Your task to perform on an android device: find photos in the google photos app Image 0: 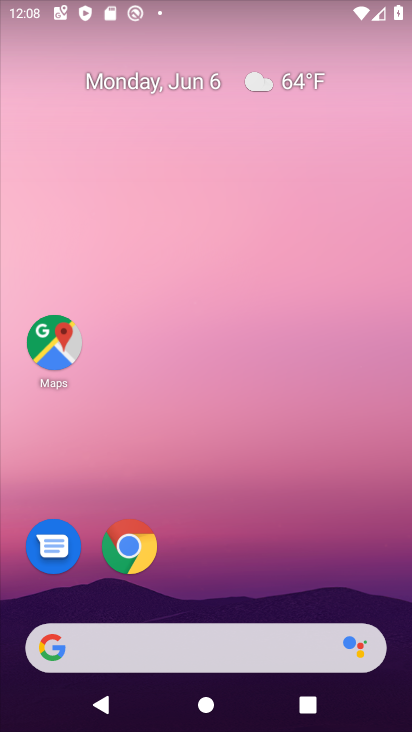
Step 0: drag from (221, 345) to (220, 175)
Your task to perform on an android device: find photos in the google photos app Image 1: 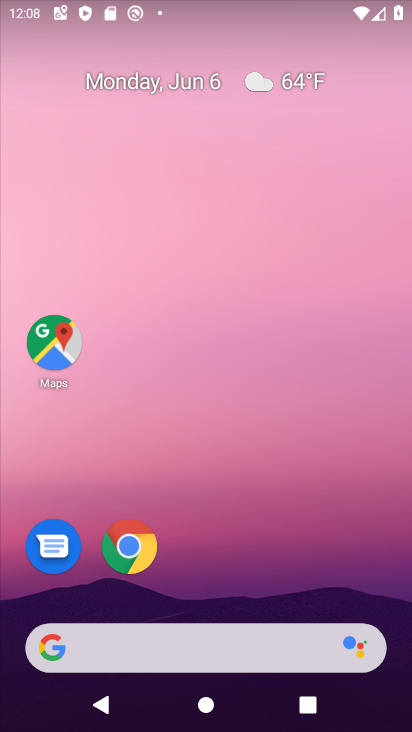
Step 1: drag from (199, 580) to (258, 243)
Your task to perform on an android device: find photos in the google photos app Image 2: 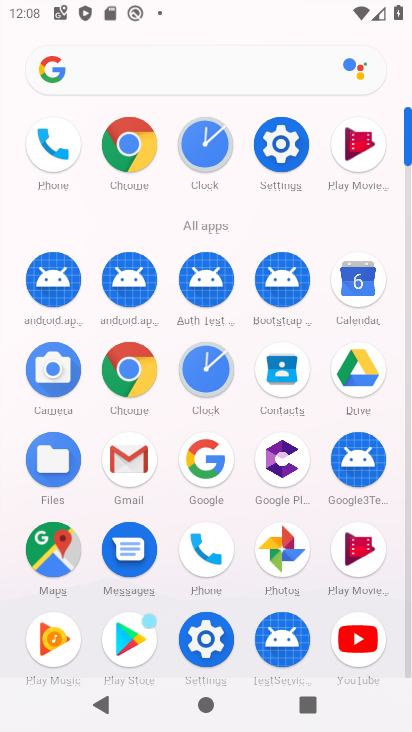
Step 2: click (279, 548)
Your task to perform on an android device: find photos in the google photos app Image 3: 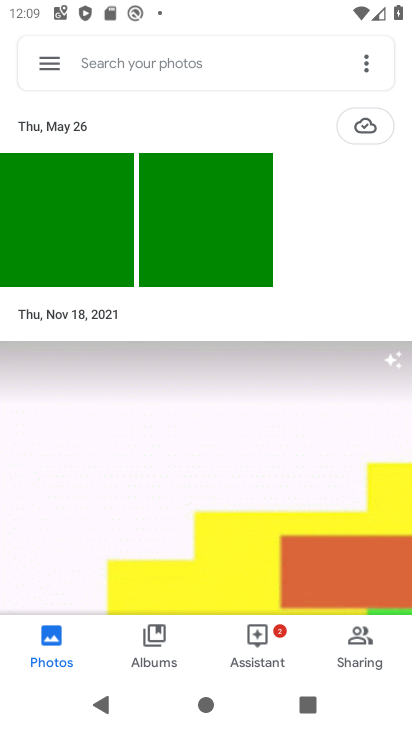
Step 3: task complete